Your task to perform on an android device: uninstall "PUBG MOBILE" Image 0: 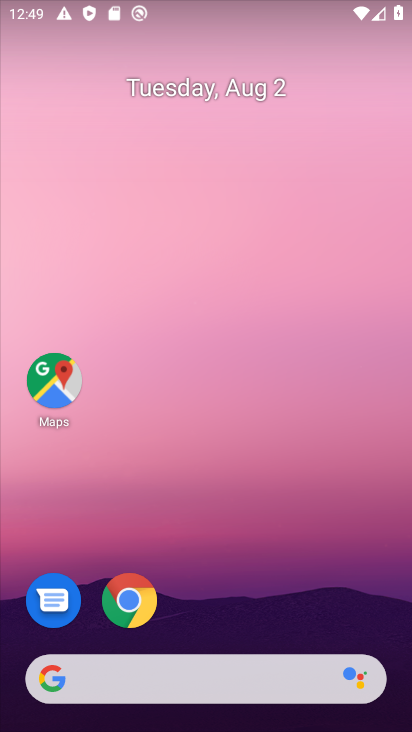
Step 0: press home button
Your task to perform on an android device: uninstall "PUBG MOBILE" Image 1: 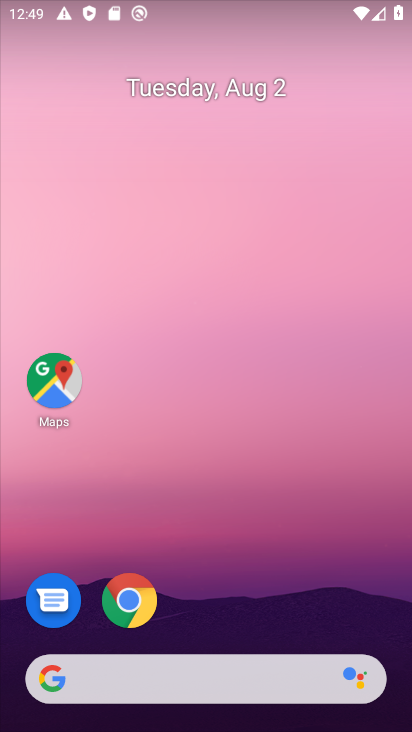
Step 1: drag from (214, 631) to (197, 64)
Your task to perform on an android device: uninstall "PUBG MOBILE" Image 2: 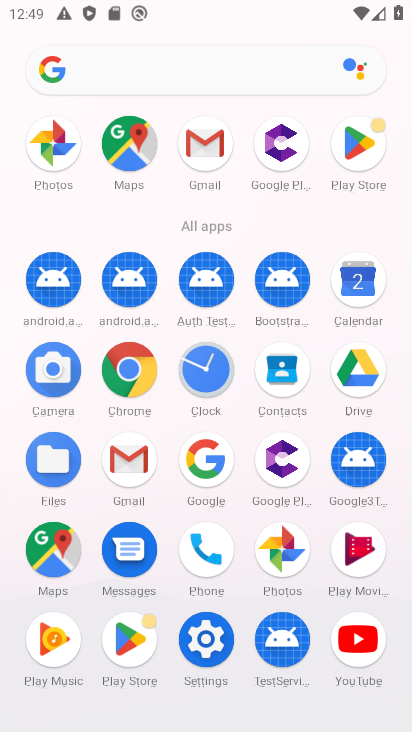
Step 2: click (356, 138)
Your task to perform on an android device: uninstall "PUBG MOBILE" Image 3: 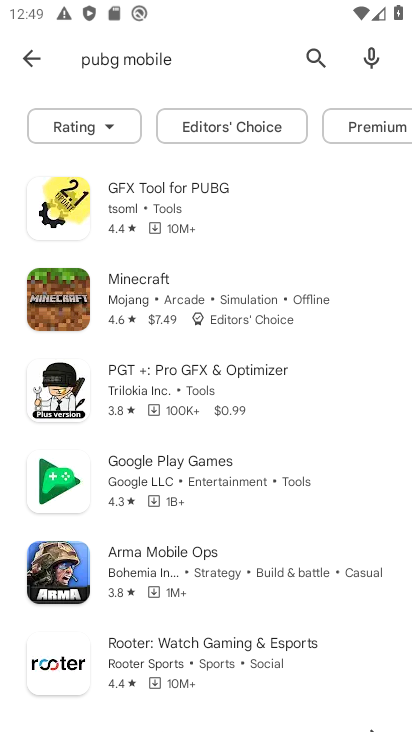
Step 3: task complete